Your task to perform on an android device: Go to calendar. Show me events next week Image 0: 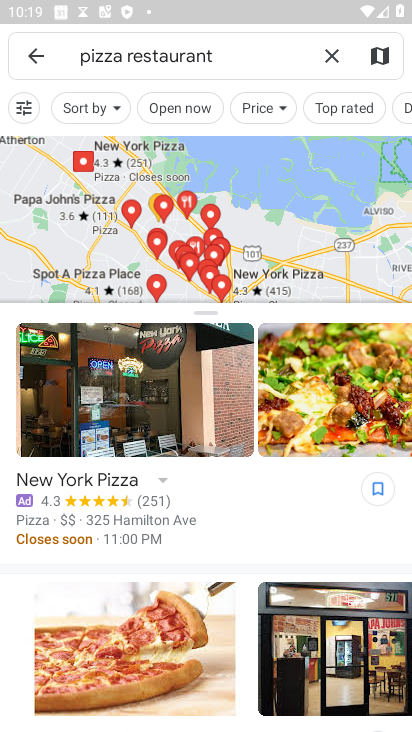
Step 0: press home button
Your task to perform on an android device: Go to calendar. Show me events next week Image 1: 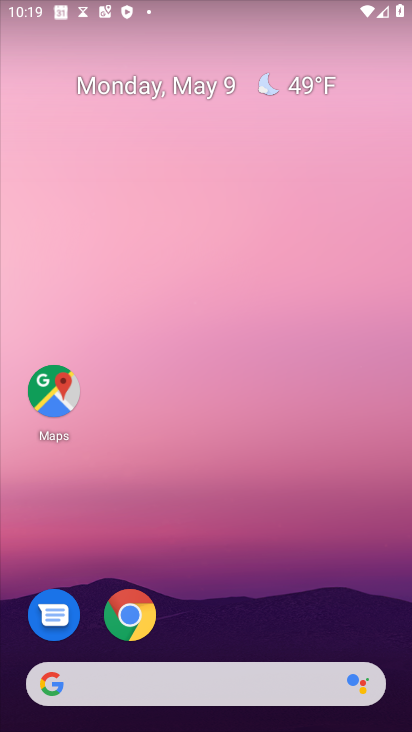
Step 1: drag from (262, 555) to (298, 146)
Your task to perform on an android device: Go to calendar. Show me events next week Image 2: 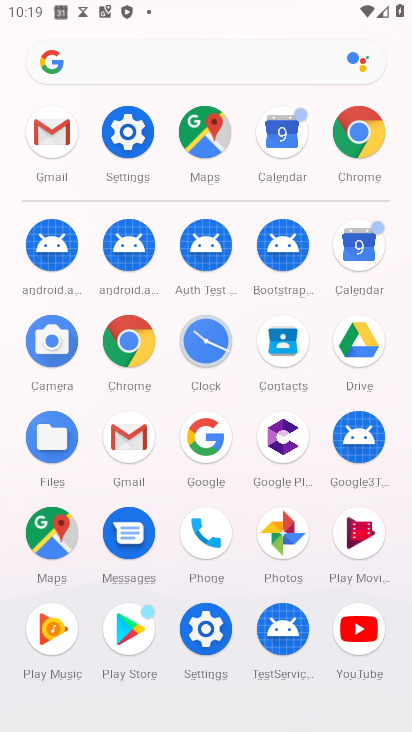
Step 2: click (365, 243)
Your task to perform on an android device: Go to calendar. Show me events next week Image 3: 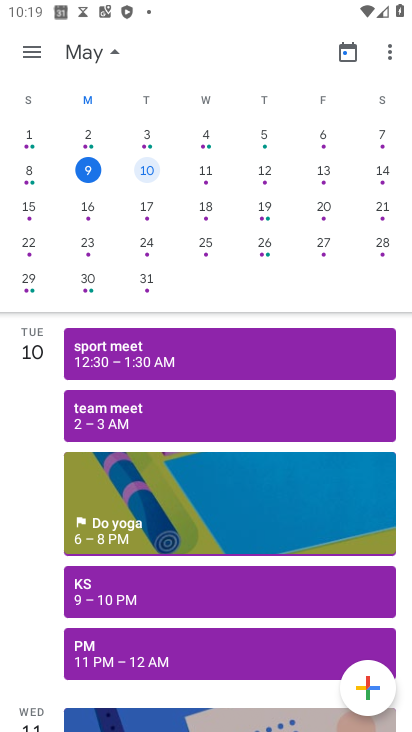
Step 3: click (26, 206)
Your task to perform on an android device: Go to calendar. Show me events next week Image 4: 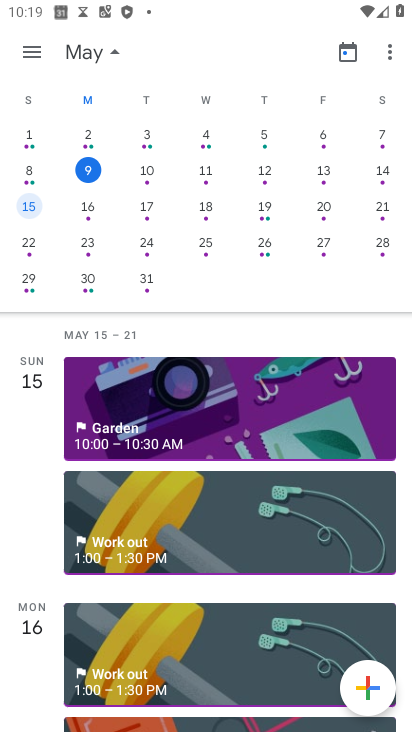
Step 4: click (95, 217)
Your task to perform on an android device: Go to calendar. Show me events next week Image 5: 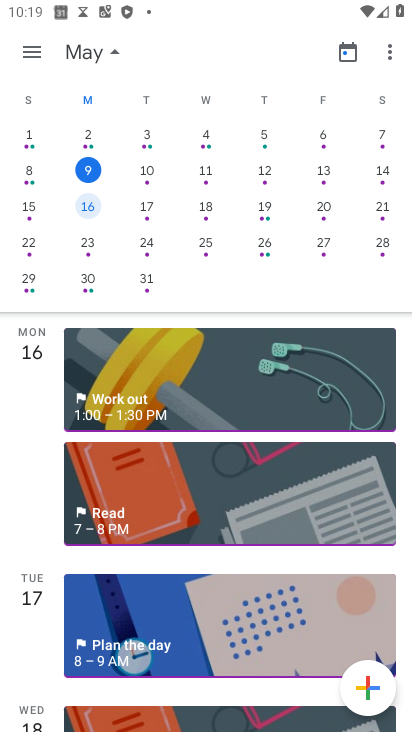
Step 5: click (145, 211)
Your task to perform on an android device: Go to calendar. Show me events next week Image 6: 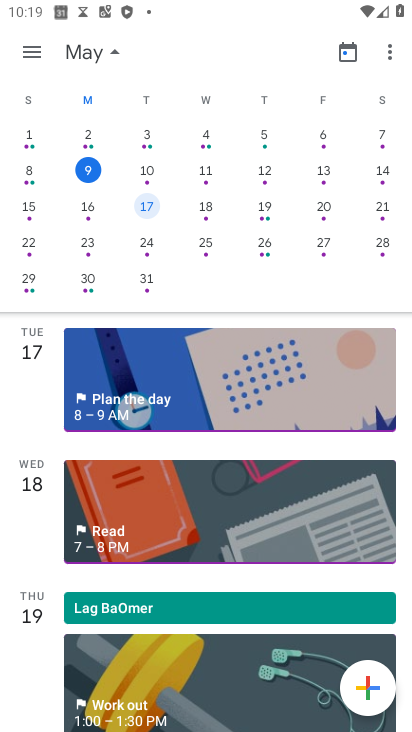
Step 6: click (204, 220)
Your task to perform on an android device: Go to calendar. Show me events next week Image 7: 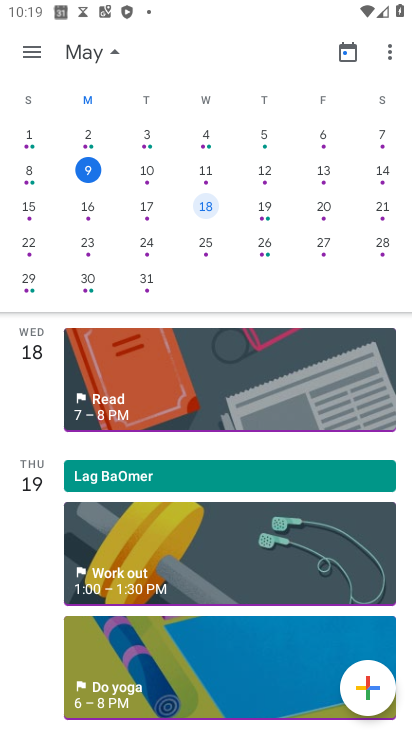
Step 7: click (260, 220)
Your task to perform on an android device: Go to calendar. Show me events next week Image 8: 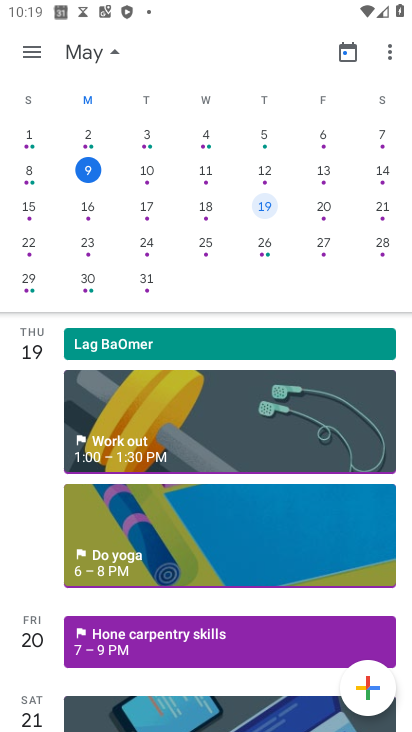
Step 8: click (332, 218)
Your task to perform on an android device: Go to calendar. Show me events next week Image 9: 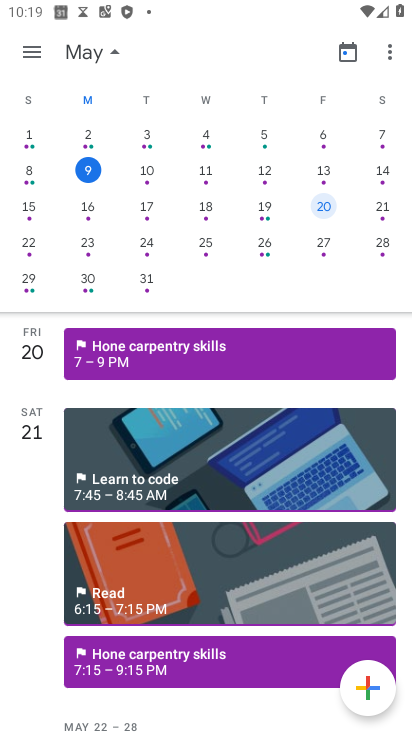
Step 9: click (382, 213)
Your task to perform on an android device: Go to calendar. Show me events next week Image 10: 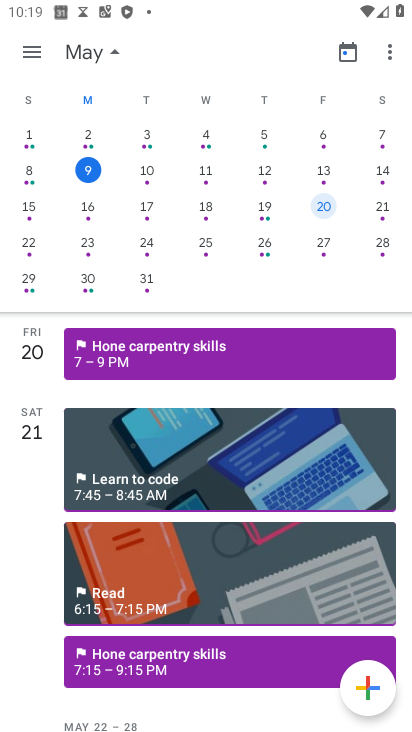
Step 10: click (380, 215)
Your task to perform on an android device: Go to calendar. Show me events next week Image 11: 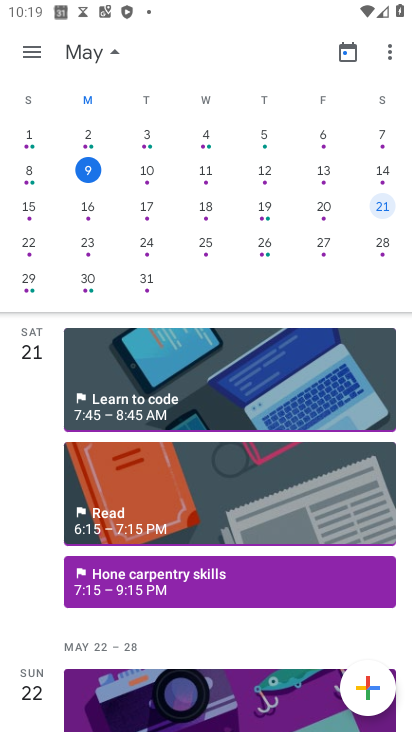
Step 11: task complete